Your task to perform on an android device: Open calendar and show me the third week of next month Image 0: 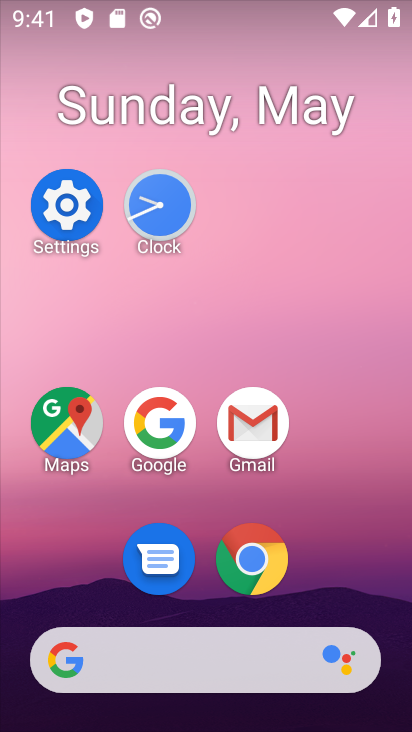
Step 0: drag from (355, 461) to (364, 178)
Your task to perform on an android device: Open calendar and show me the third week of next month Image 1: 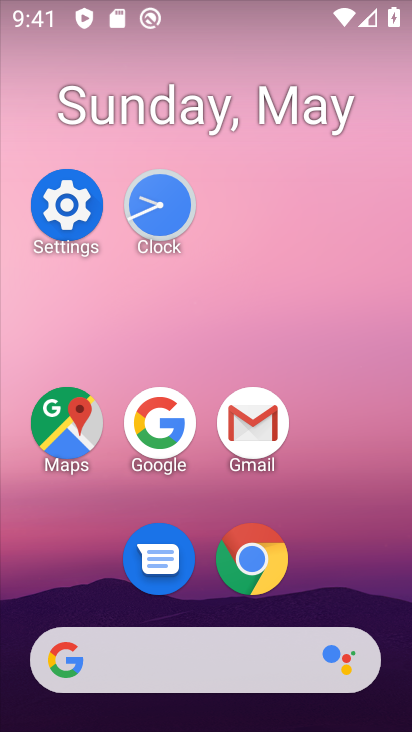
Step 1: drag from (309, 608) to (330, 163)
Your task to perform on an android device: Open calendar and show me the third week of next month Image 2: 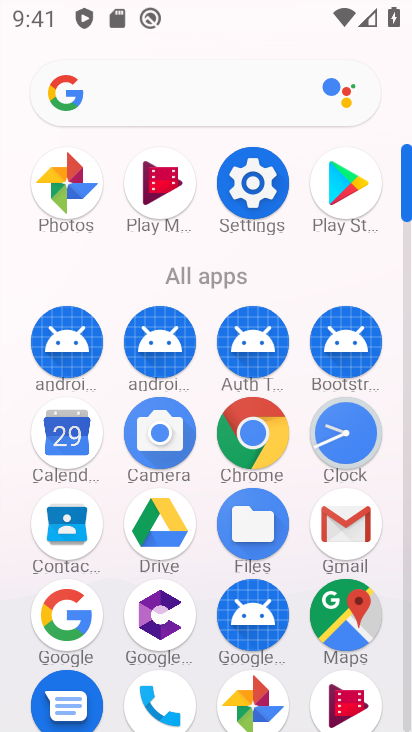
Step 2: drag from (72, 434) to (288, 230)
Your task to perform on an android device: Open calendar and show me the third week of next month Image 3: 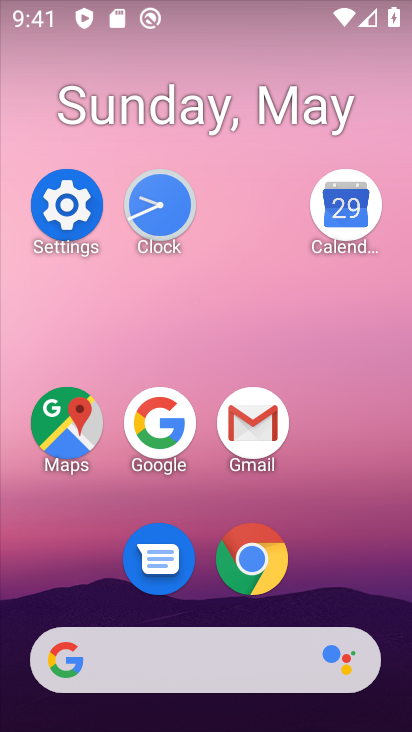
Step 3: drag from (342, 204) to (276, 201)
Your task to perform on an android device: Open calendar and show me the third week of next month Image 4: 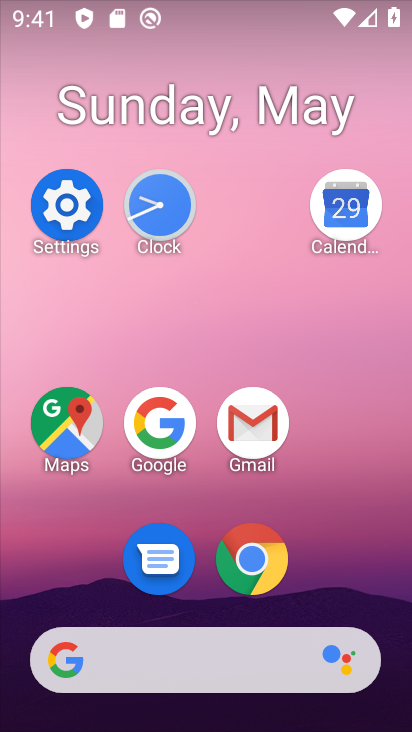
Step 4: drag from (336, 227) to (218, 244)
Your task to perform on an android device: Open calendar and show me the third week of next month Image 5: 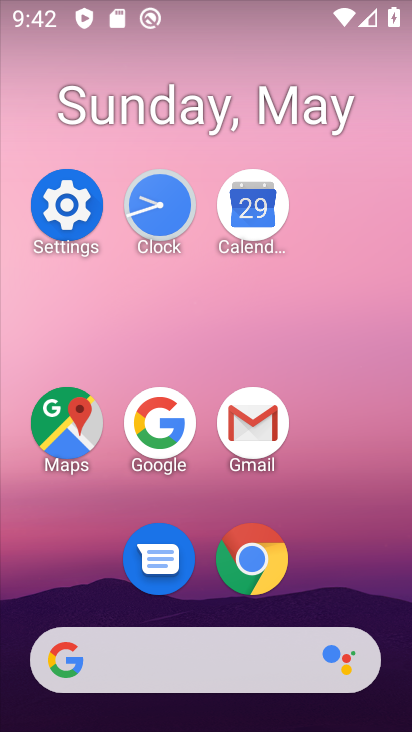
Step 5: click (258, 192)
Your task to perform on an android device: Open calendar and show me the third week of next month Image 6: 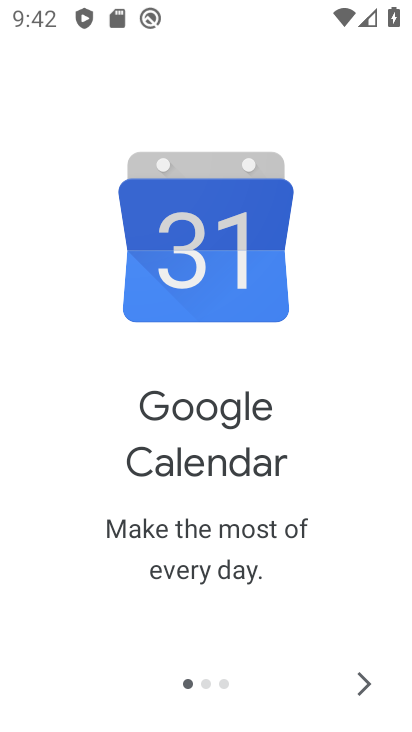
Step 6: click (375, 694)
Your task to perform on an android device: Open calendar and show me the third week of next month Image 7: 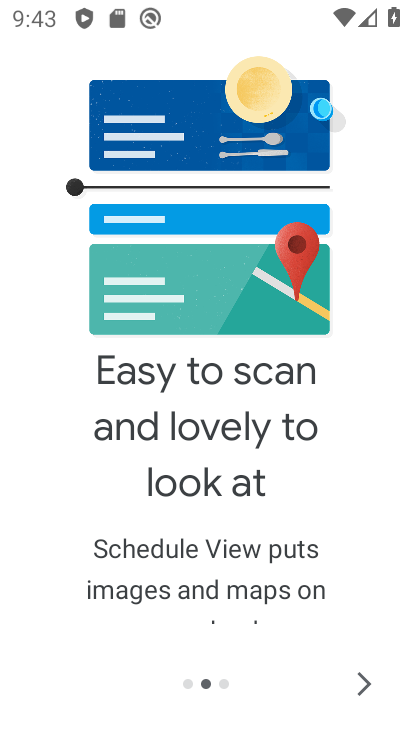
Step 7: click (367, 678)
Your task to perform on an android device: Open calendar and show me the third week of next month Image 8: 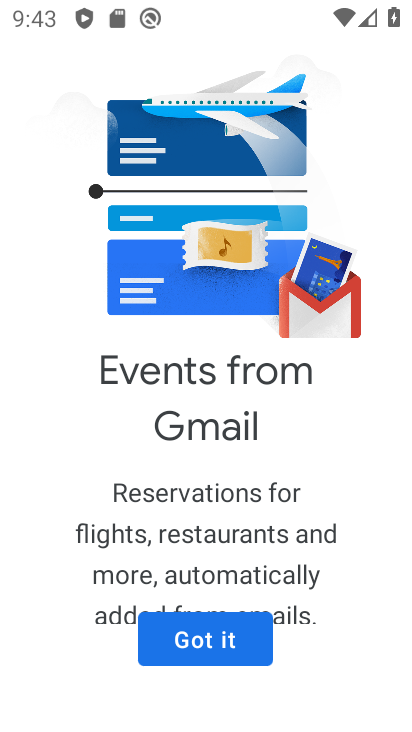
Step 8: click (213, 648)
Your task to perform on an android device: Open calendar and show me the third week of next month Image 9: 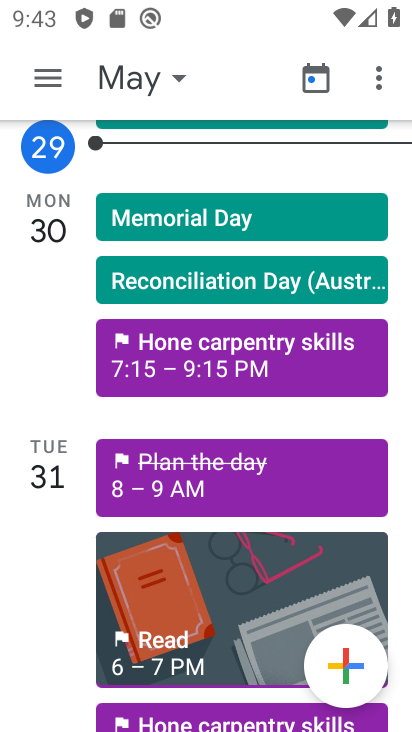
Step 9: click (150, 82)
Your task to perform on an android device: Open calendar and show me the third week of next month Image 10: 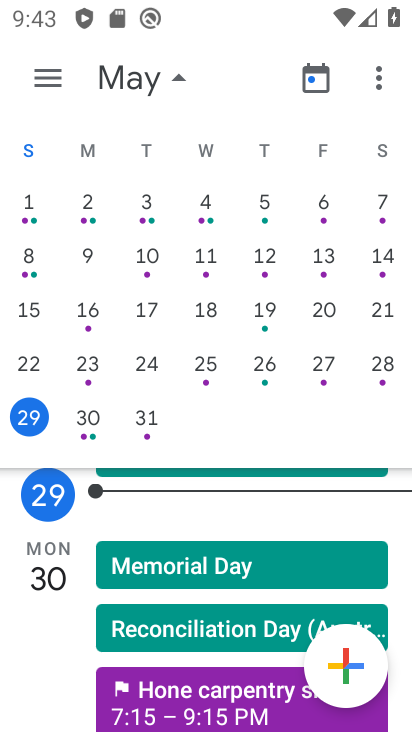
Step 10: drag from (393, 294) to (61, 249)
Your task to perform on an android device: Open calendar and show me the third week of next month Image 11: 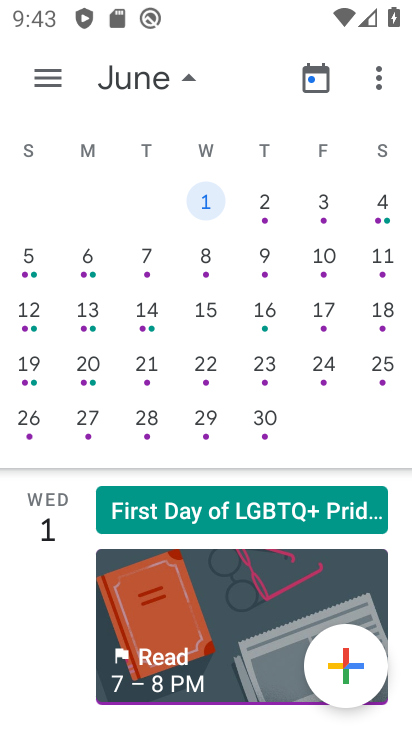
Step 11: click (42, 86)
Your task to perform on an android device: Open calendar and show me the third week of next month Image 12: 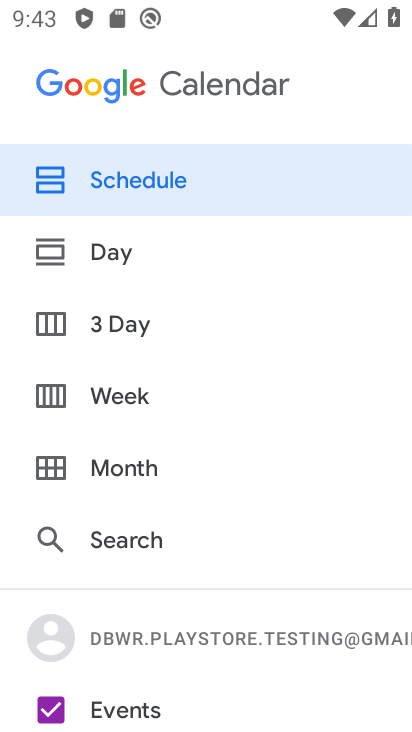
Step 12: click (131, 415)
Your task to perform on an android device: Open calendar and show me the third week of next month Image 13: 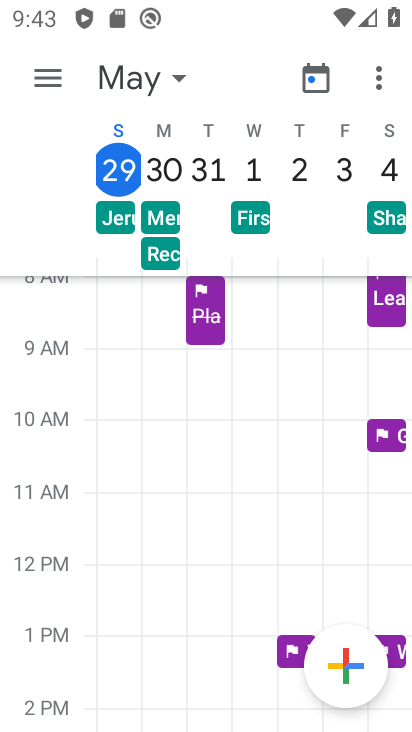
Step 13: task complete